Your task to perform on an android device: Do I have any events this weekend? Image 0: 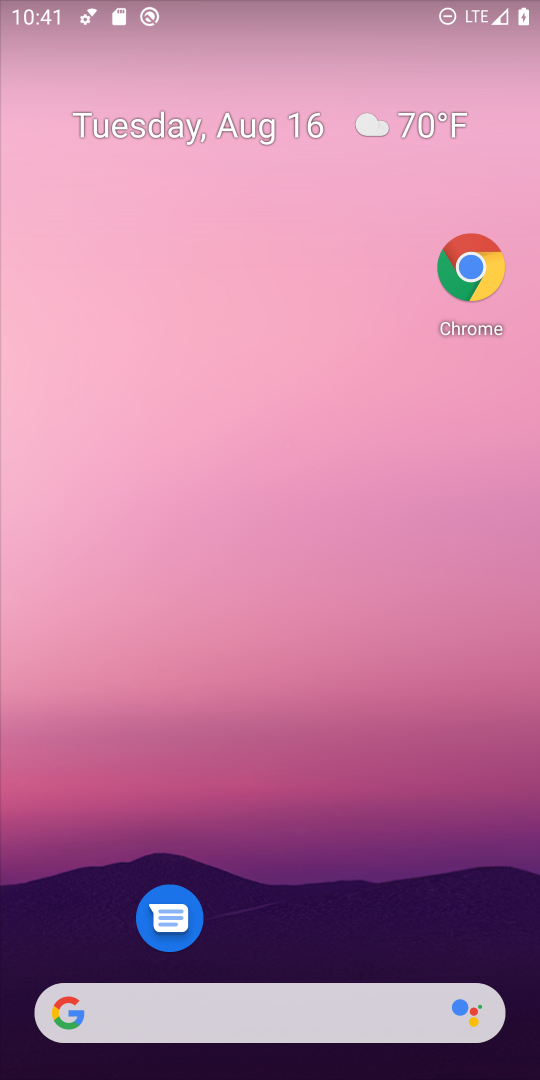
Step 0: drag from (345, 1019) to (327, 112)
Your task to perform on an android device: Do I have any events this weekend? Image 1: 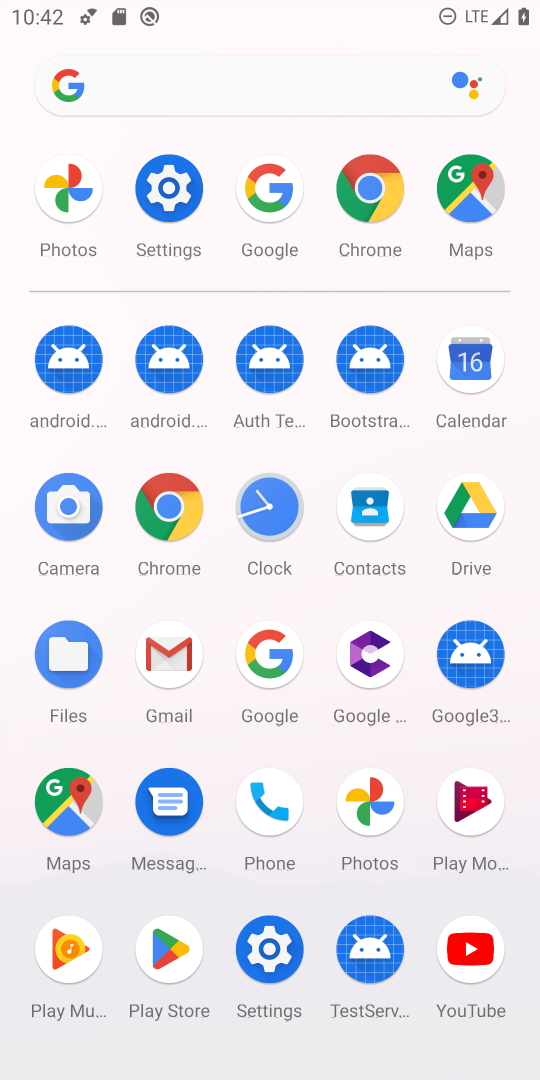
Step 1: click (485, 387)
Your task to perform on an android device: Do I have any events this weekend? Image 2: 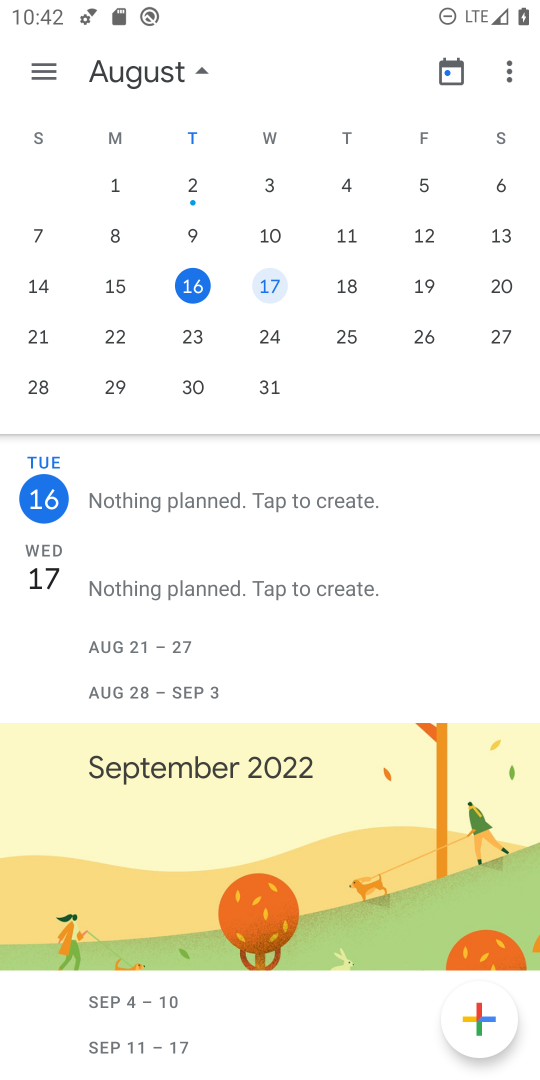
Step 2: task complete